Your task to perform on an android device: Go to Google maps Image 0: 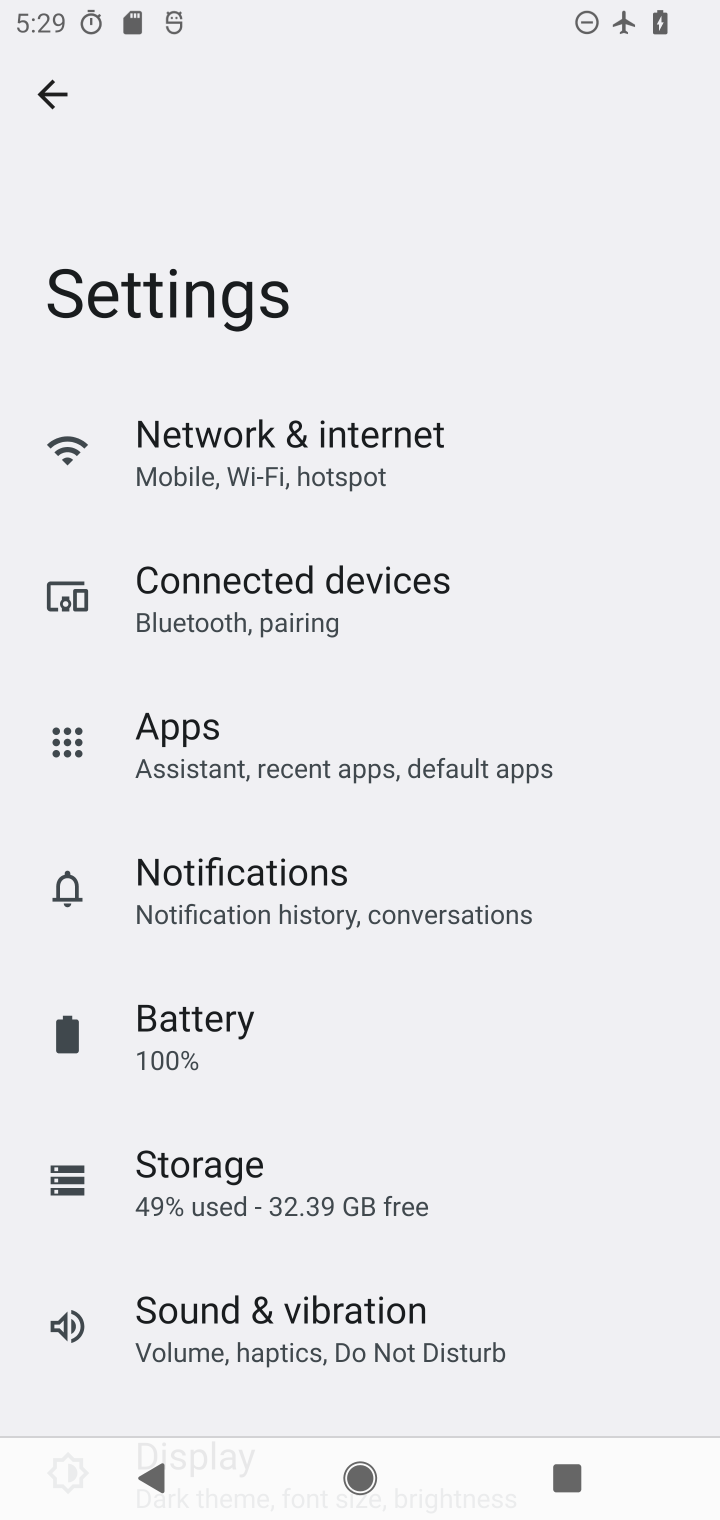
Step 0: press home button
Your task to perform on an android device: Go to Google maps Image 1: 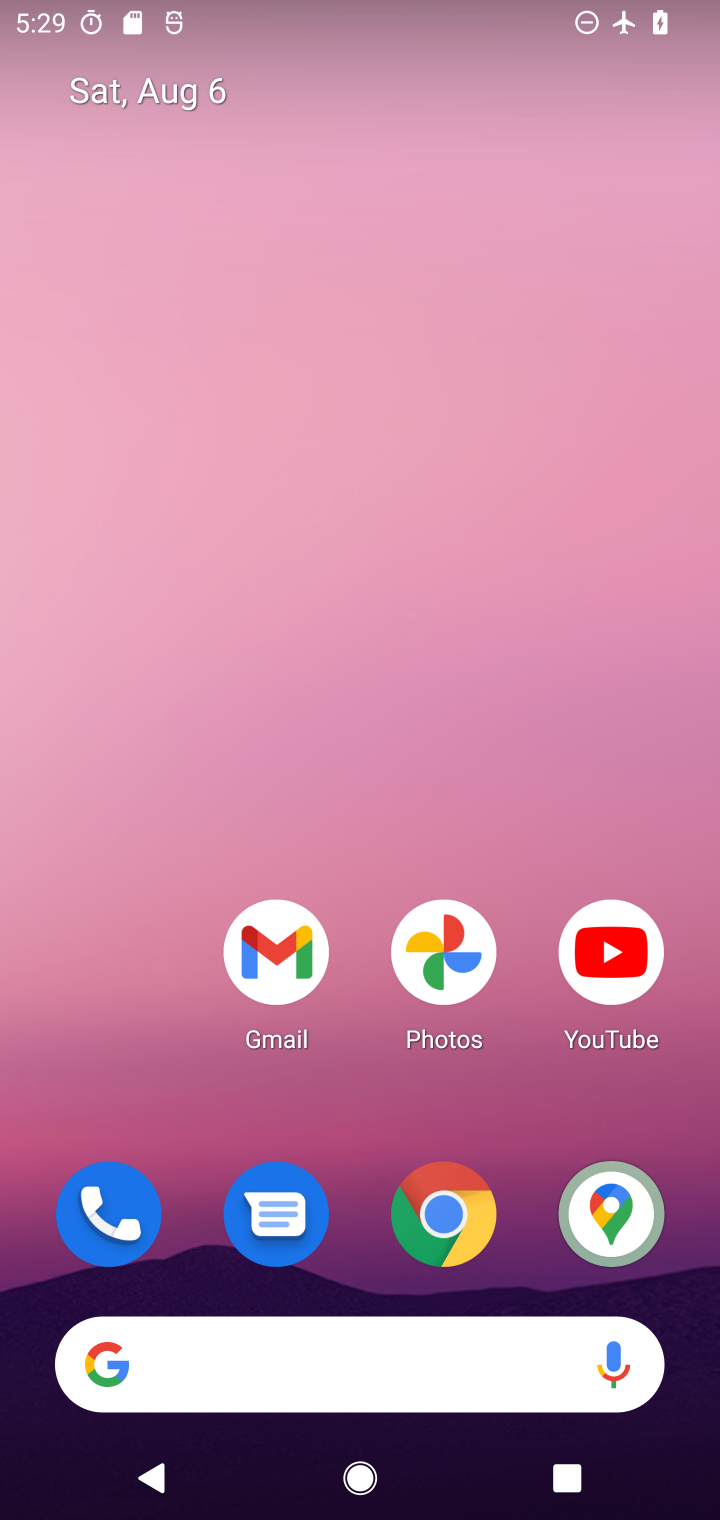
Step 1: click (606, 1244)
Your task to perform on an android device: Go to Google maps Image 2: 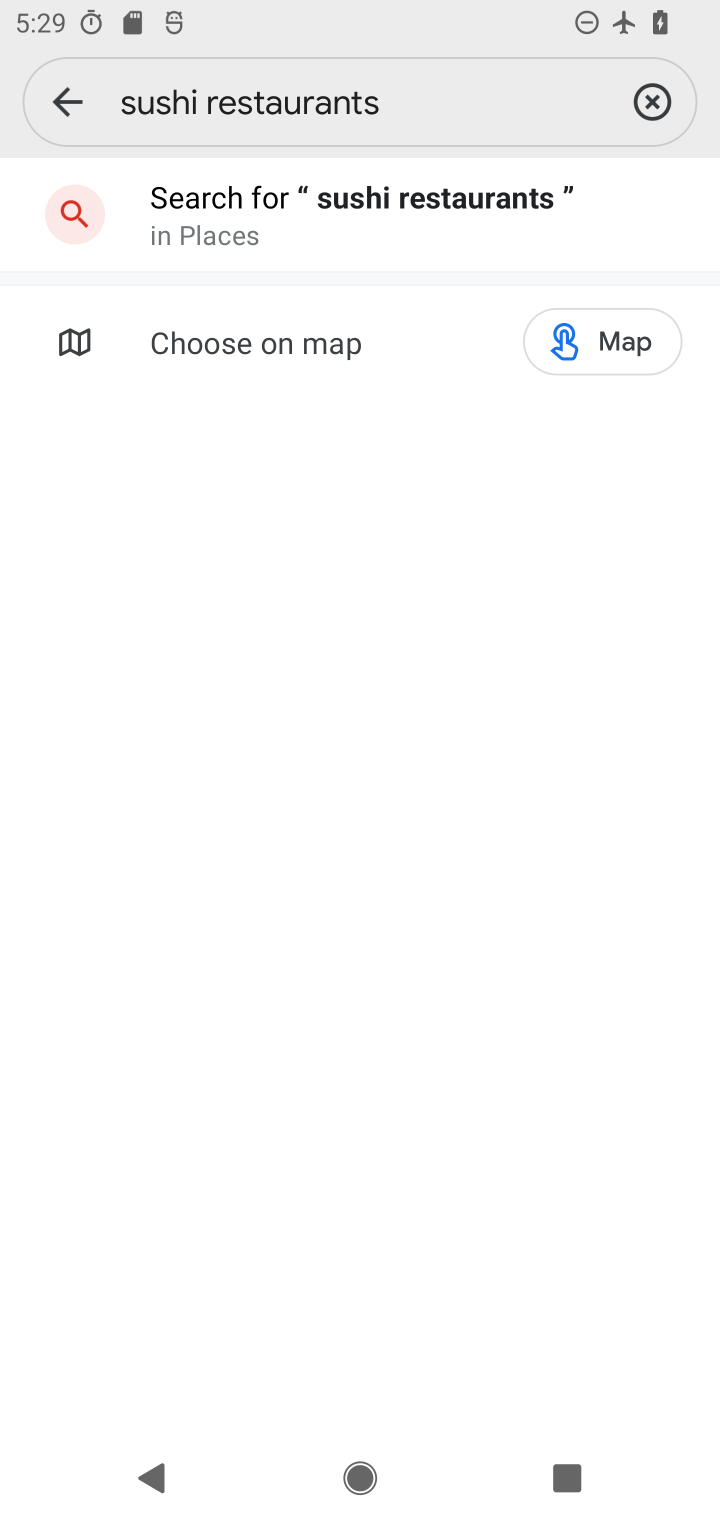
Step 2: task complete